Your task to perform on an android device: refresh tabs in the chrome app Image 0: 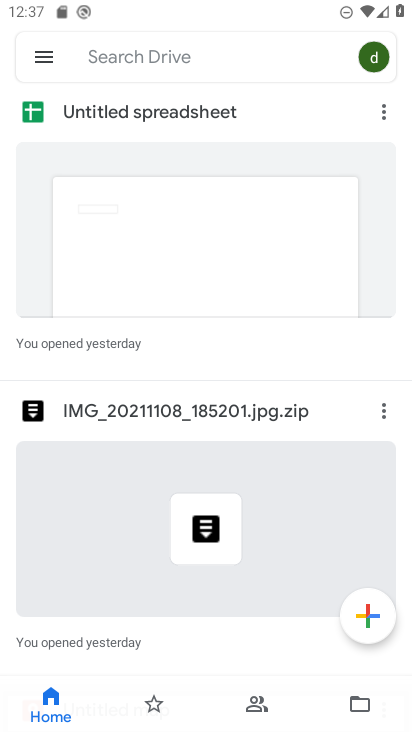
Step 0: press home button
Your task to perform on an android device: refresh tabs in the chrome app Image 1: 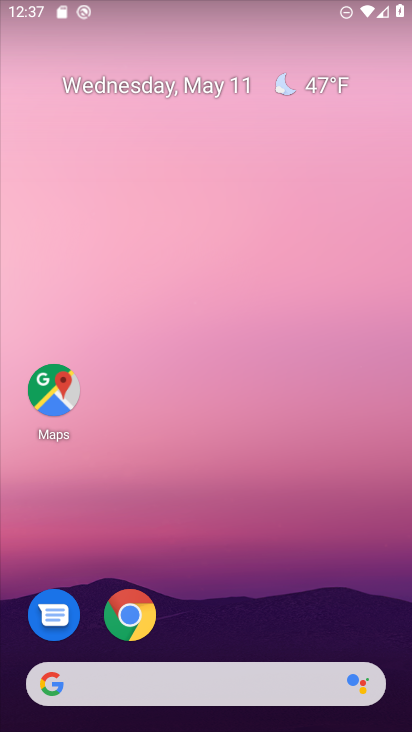
Step 1: drag from (240, 603) to (228, 180)
Your task to perform on an android device: refresh tabs in the chrome app Image 2: 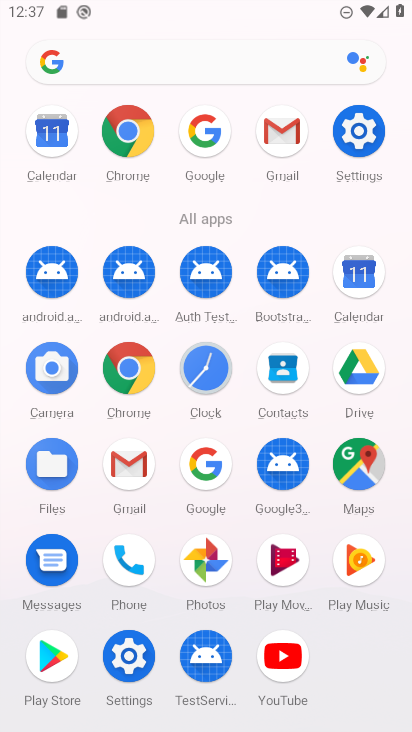
Step 2: click (129, 373)
Your task to perform on an android device: refresh tabs in the chrome app Image 3: 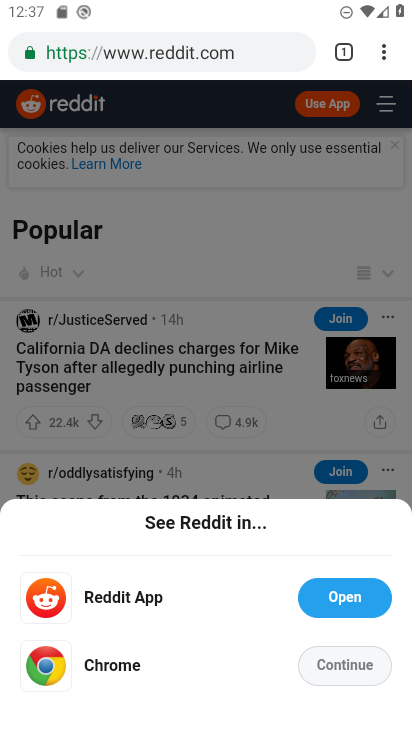
Step 3: click (388, 47)
Your task to perform on an android device: refresh tabs in the chrome app Image 4: 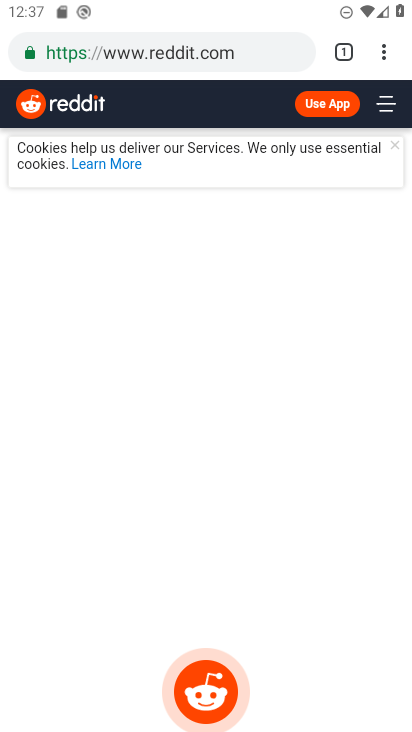
Step 4: task complete